Your task to perform on an android device: turn on bluetooth scan Image 0: 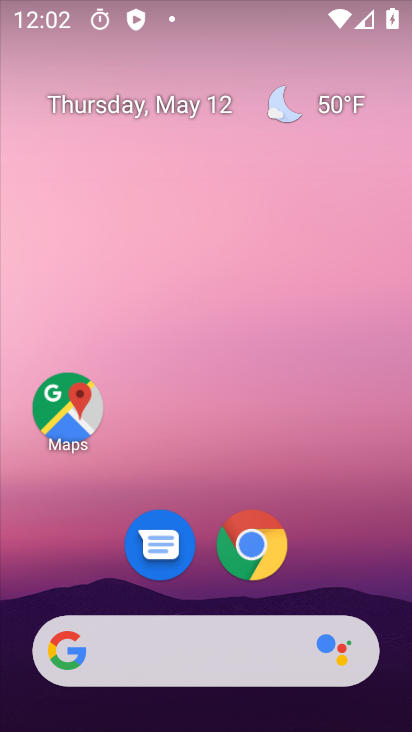
Step 0: drag from (127, 639) to (30, 289)
Your task to perform on an android device: turn on bluetooth scan Image 1: 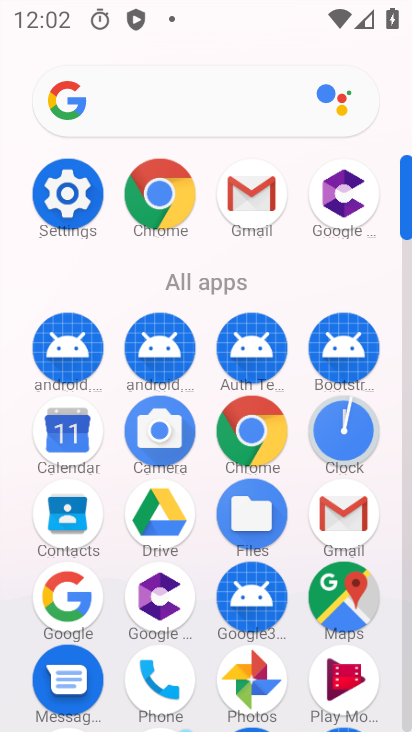
Step 1: click (79, 203)
Your task to perform on an android device: turn on bluetooth scan Image 2: 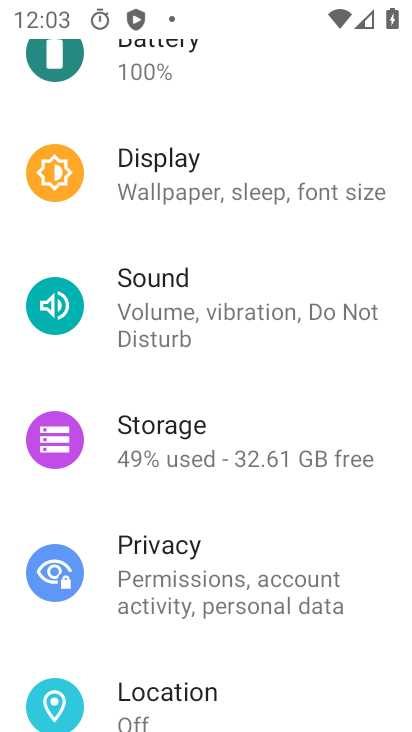
Step 2: drag from (190, 592) to (190, 70)
Your task to perform on an android device: turn on bluetooth scan Image 3: 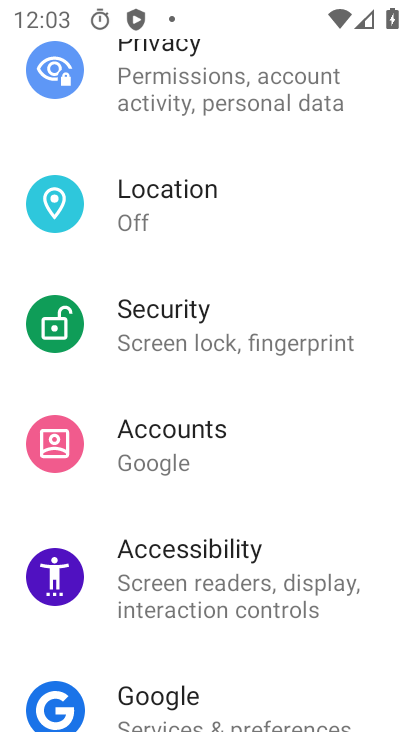
Step 3: click (153, 211)
Your task to perform on an android device: turn on bluetooth scan Image 4: 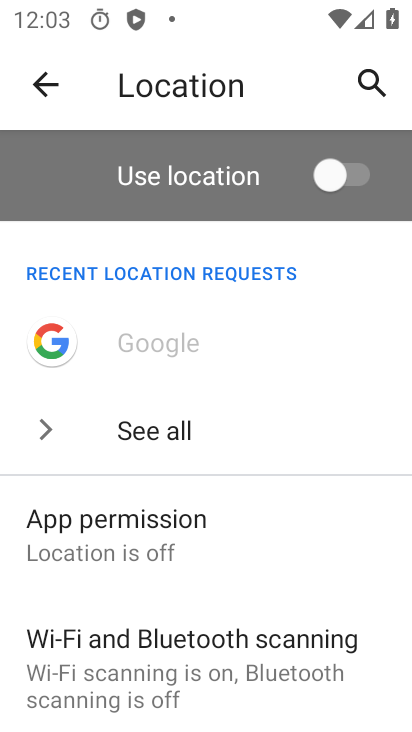
Step 4: drag from (203, 602) to (184, 337)
Your task to perform on an android device: turn on bluetooth scan Image 5: 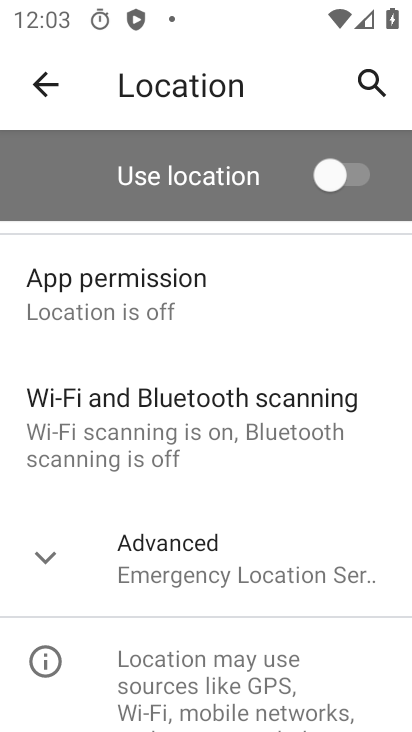
Step 5: click (160, 433)
Your task to perform on an android device: turn on bluetooth scan Image 6: 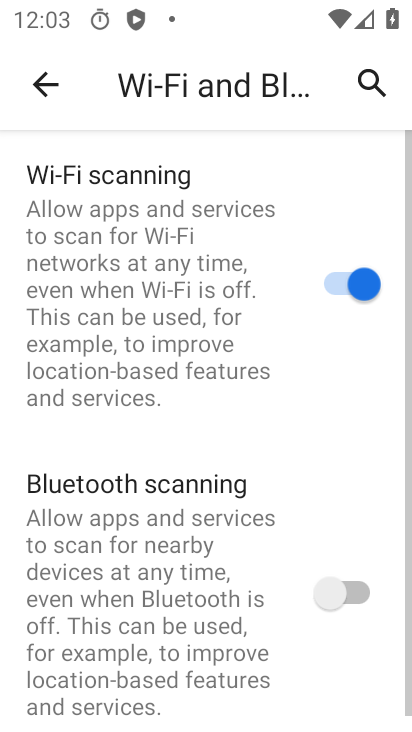
Step 6: click (337, 612)
Your task to perform on an android device: turn on bluetooth scan Image 7: 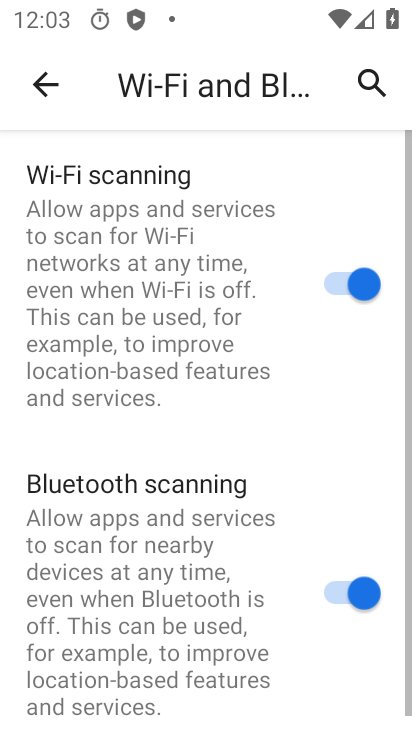
Step 7: task complete